Your task to perform on an android device: Check the news Image 0: 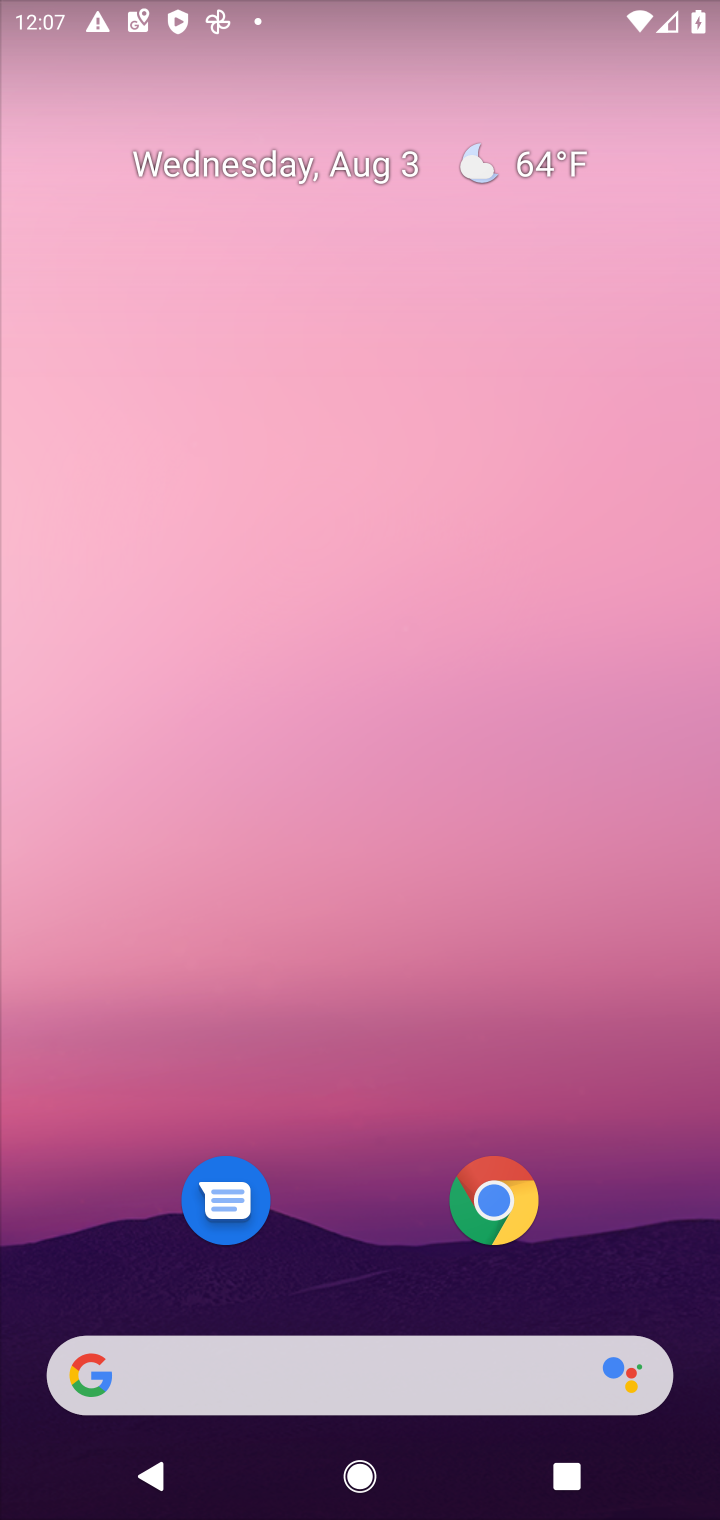
Step 0: drag from (62, 696) to (681, 761)
Your task to perform on an android device: Check the news Image 1: 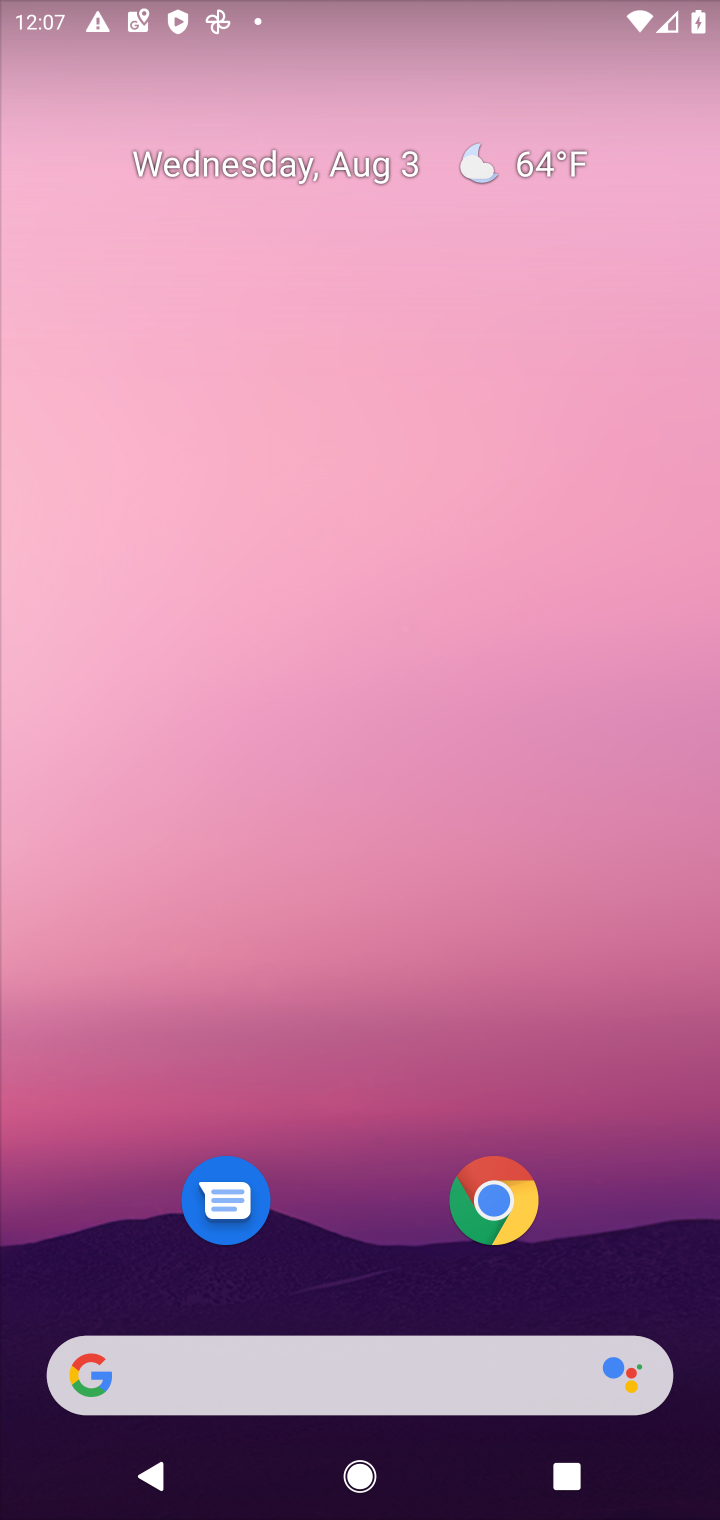
Step 1: task complete